Your task to perform on an android device: delete the emails in spam in the gmail app Image 0: 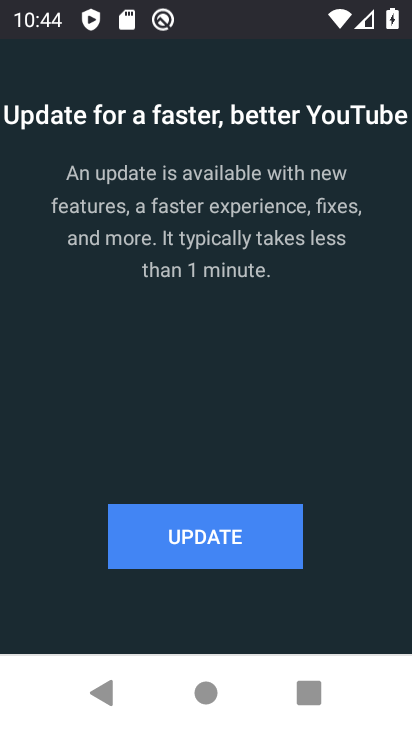
Step 0: press home button
Your task to perform on an android device: delete the emails in spam in the gmail app Image 1: 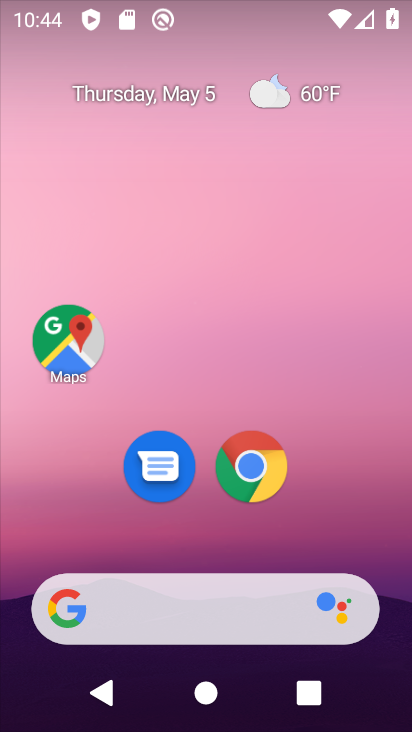
Step 1: drag from (192, 551) to (258, 173)
Your task to perform on an android device: delete the emails in spam in the gmail app Image 2: 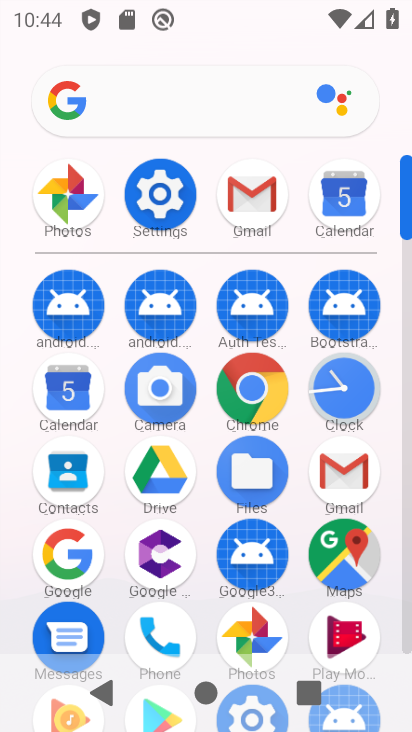
Step 2: click (240, 194)
Your task to perform on an android device: delete the emails in spam in the gmail app Image 3: 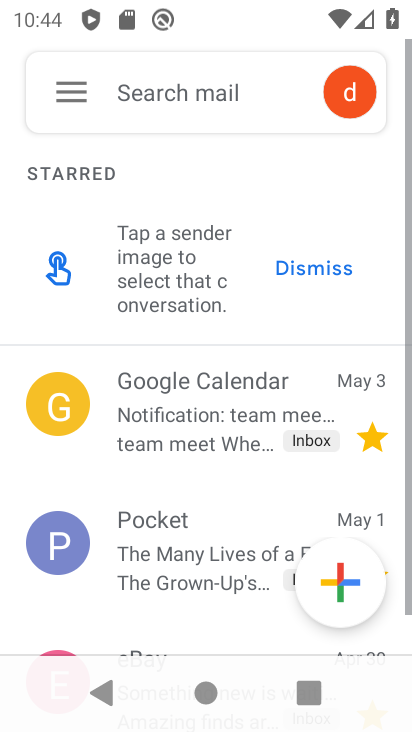
Step 3: click (67, 95)
Your task to perform on an android device: delete the emails in spam in the gmail app Image 4: 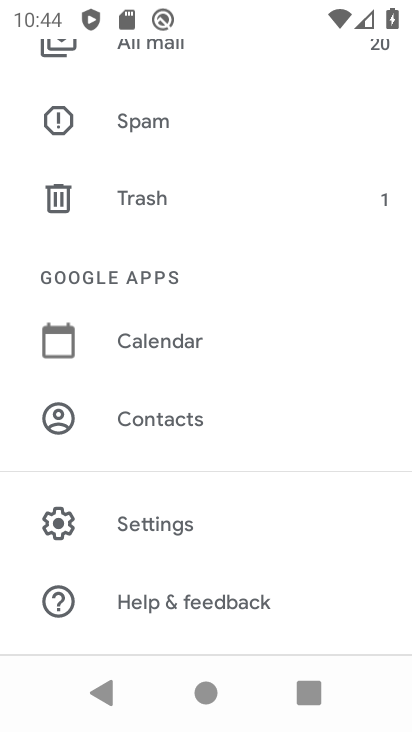
Step 4: click (122, 126)
Your task to perform on an android device: delete the emails in spam in the gmail app Image 5: 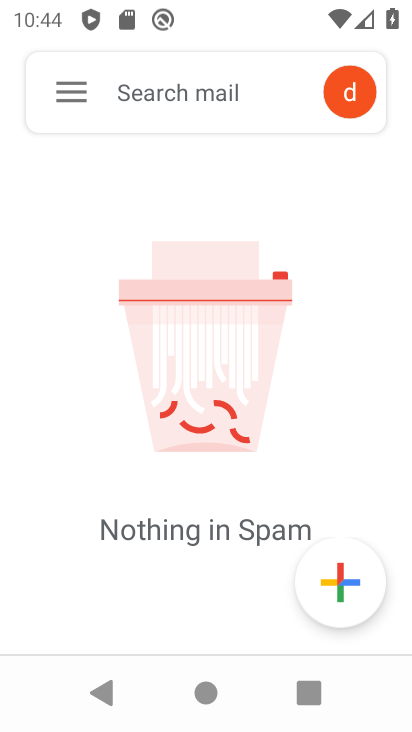
Step 5: task complete